Your task to perform on an android device: turn off priority inbox in the gmail app Image 0: 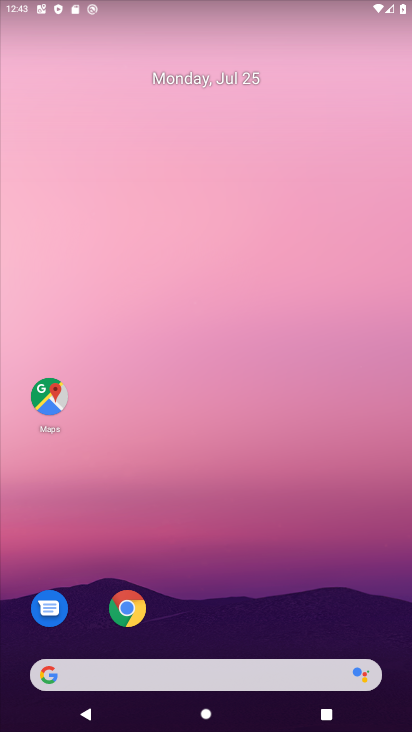
Step 0: drag from (257, 639) to (319, 68)
Your task to perform on an android device: turn off priority inbox in the gmail app Image 1: 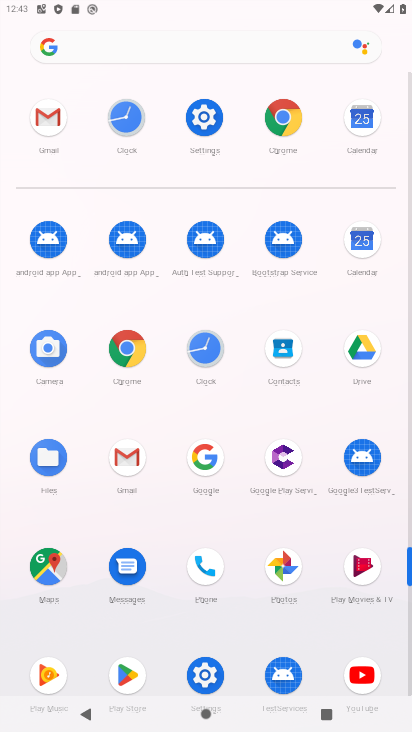
Step 1: click (44, 121)
Your task to perform on an android device: turn off priority inbox in the gmail app Image 2: 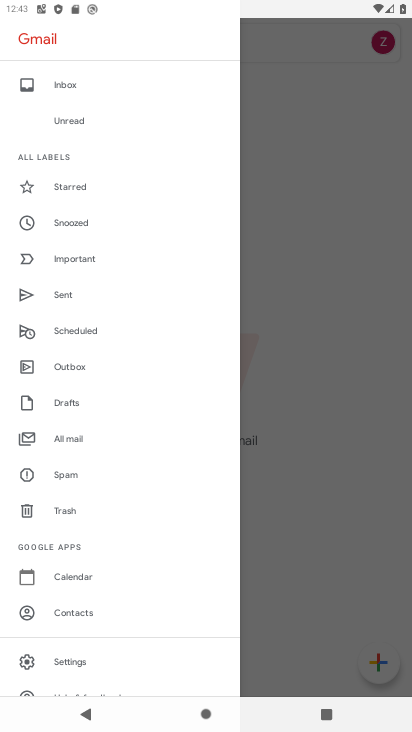
Step 2: click (63, 657)
Your task to perform on an android device: turn off priority inbox in the gmail app Image 3: 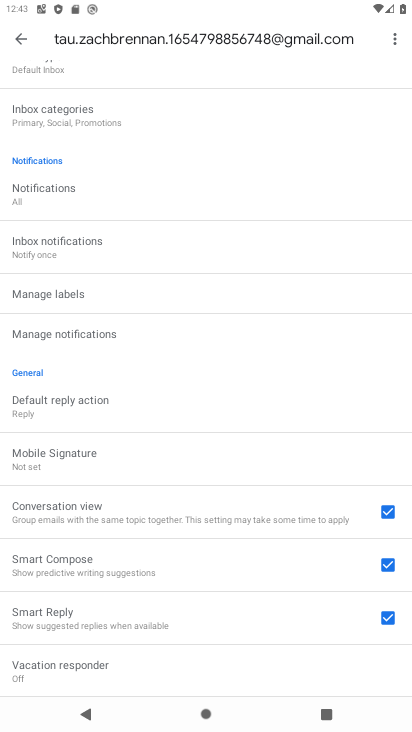
Step 3: drag from (133, 207) to (142, 397)
Your task to perform on an android device: turn off priority inbox in the gmail app Image 4: 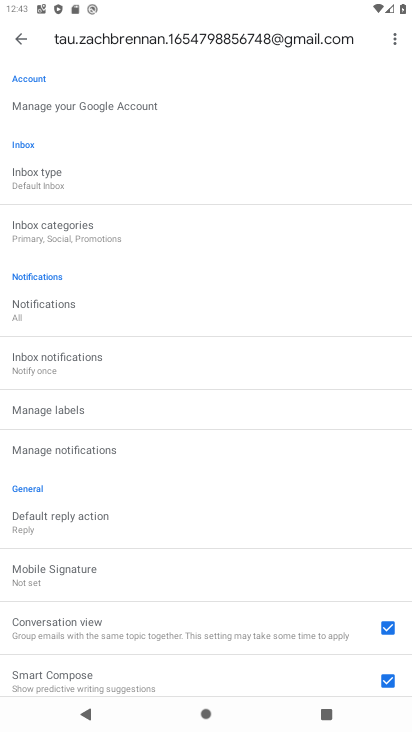
Step 4: click (34, 178)
Your task to perform on an android device: turn off priority inbox in the gmail app Image 5: 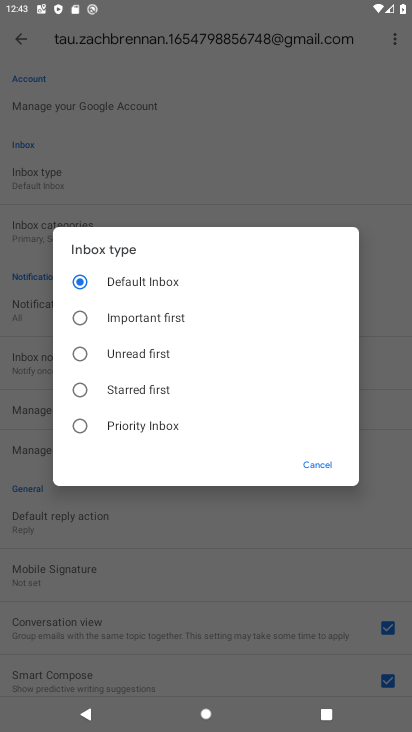
Step 5: task complete